Your task to perform on an android device: Open the map Image 0: 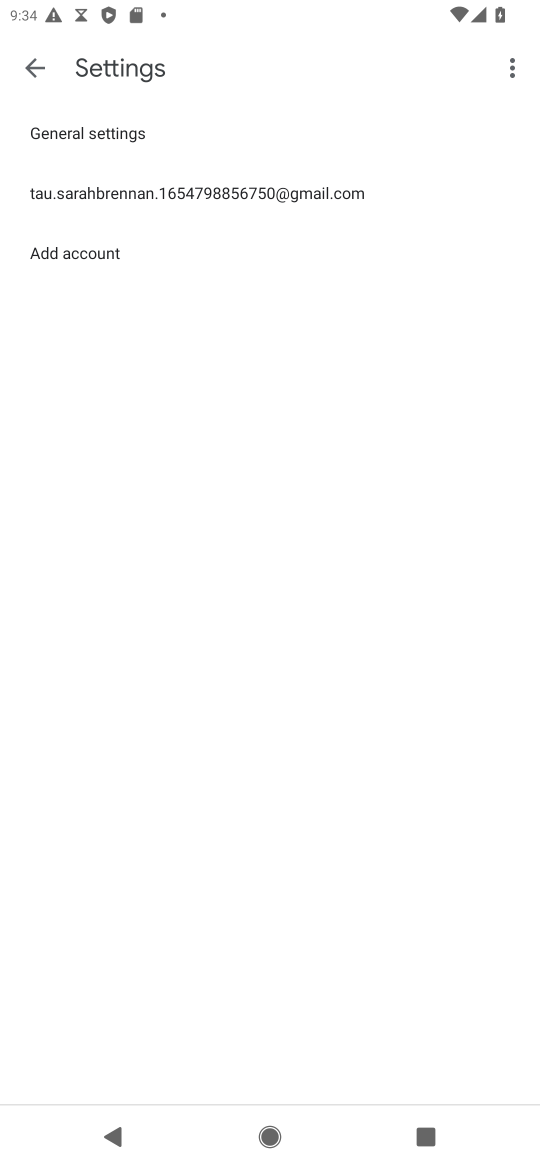
Step 0: press home button
Your task to perform on an android device: Open the map Image 1: 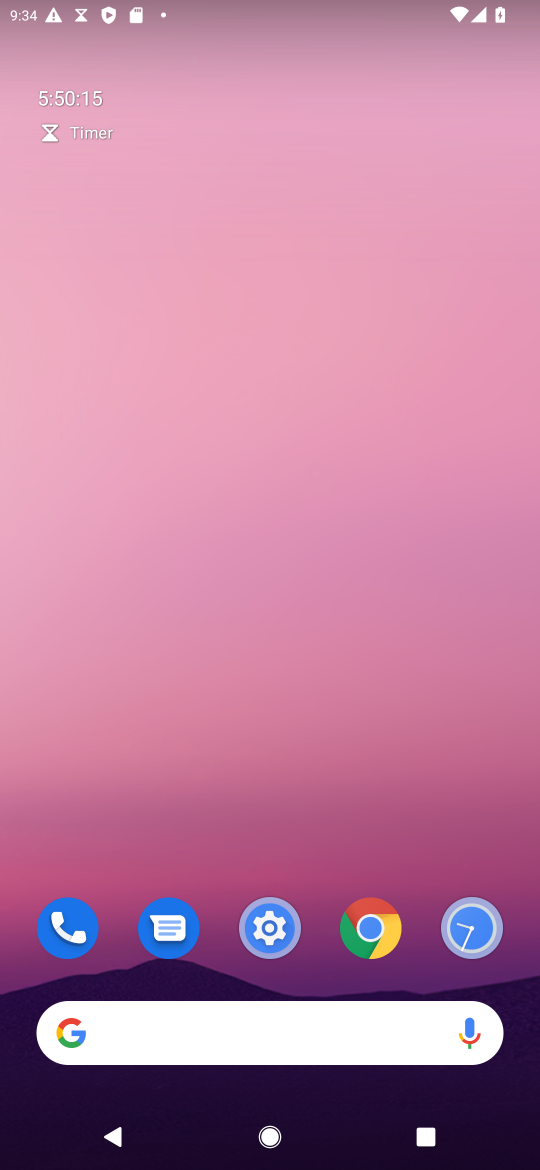
Step 1: drag from (366, 788) to (523, 497)
Your task to perform on an android device: Open the map Image 2: 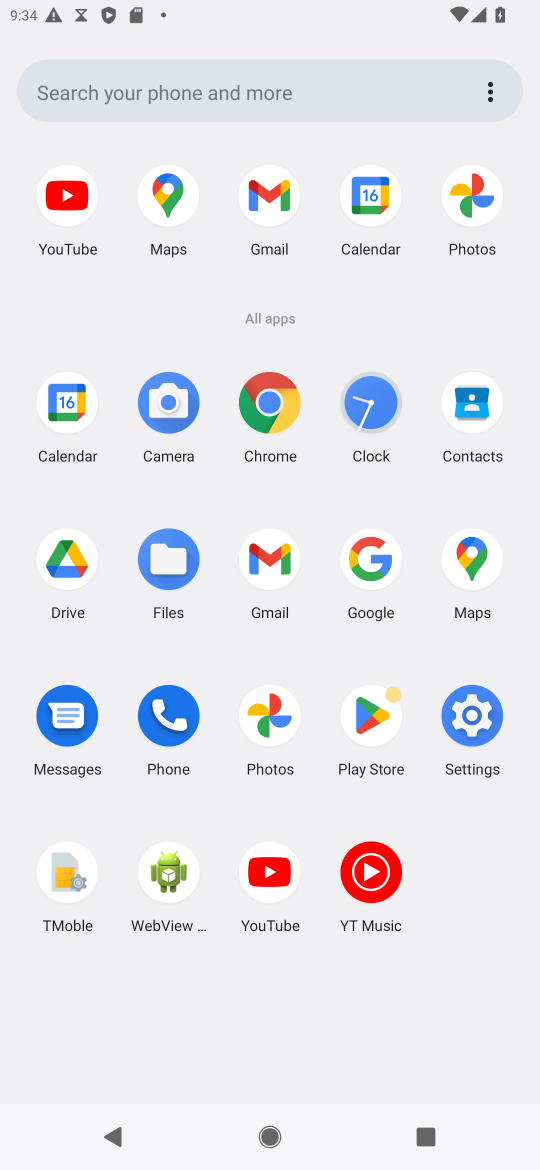
Step 2: click (474, 555)
Your task to perform on an android device: Open the map Image 3: 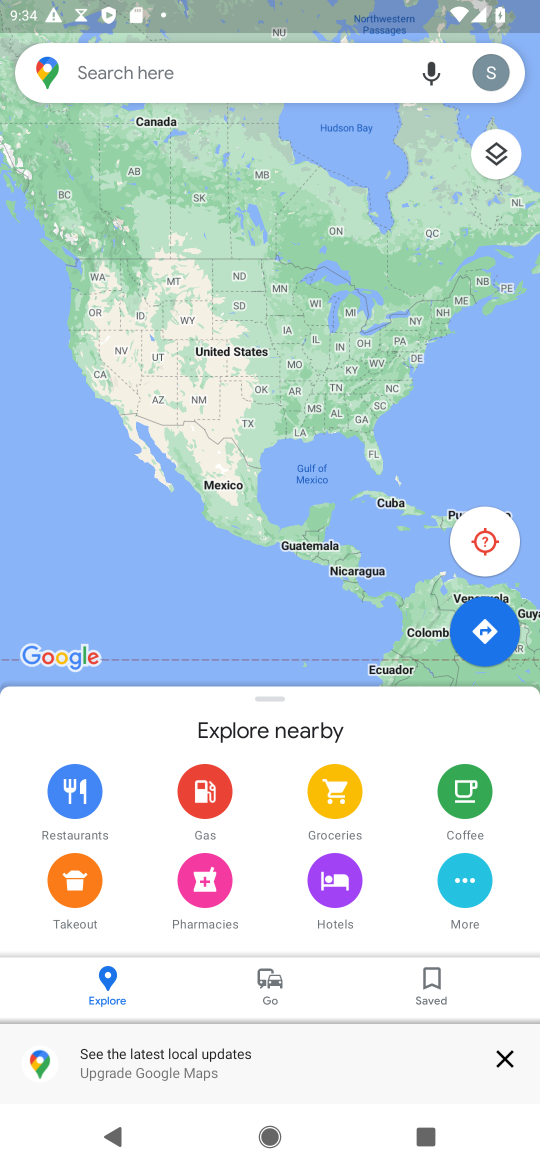
Step 3: task complete